Your task to perform on an android device: Do I have any events tomorrow? Image 0: 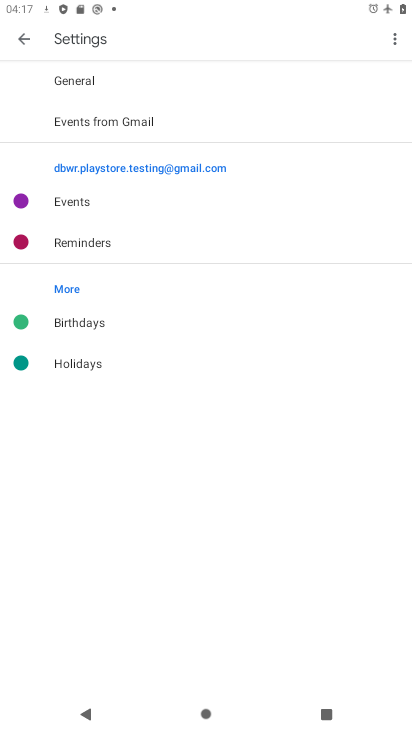
Step 0: press home button
Your task to perform on an android device: Do I have any events tomorrow? Image 1: 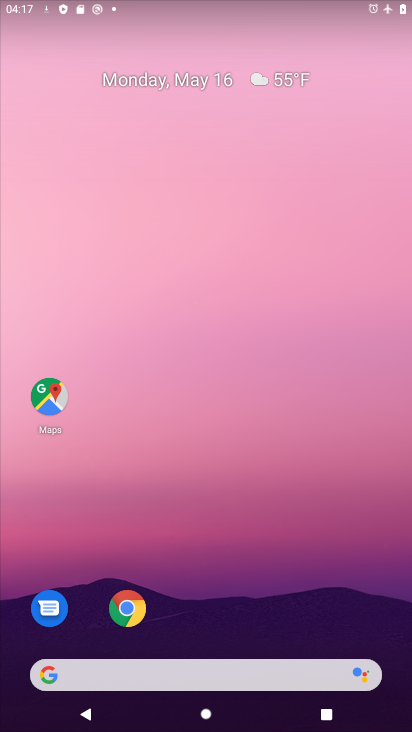
Step 1: drag from (192, 604) to (182, 236)
Your task to perform on an android device: Do I have any events tomorrow? Image 2: 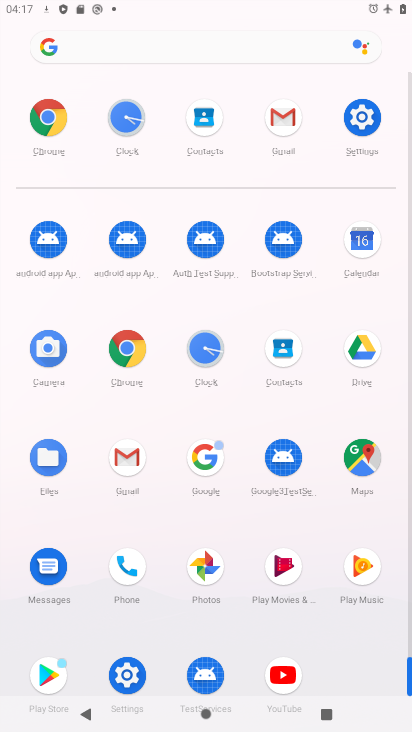
Step 2: click (352, 252)
Your task to perform on an android device: Do I have any events tomorrow? Image 3: 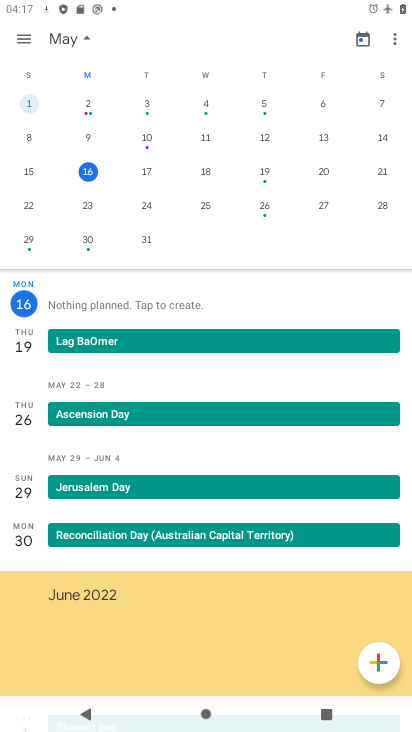
Step 3: click (142, 170)
Your task to perform on an android device: Do I have any events tomorrow? Image 4: 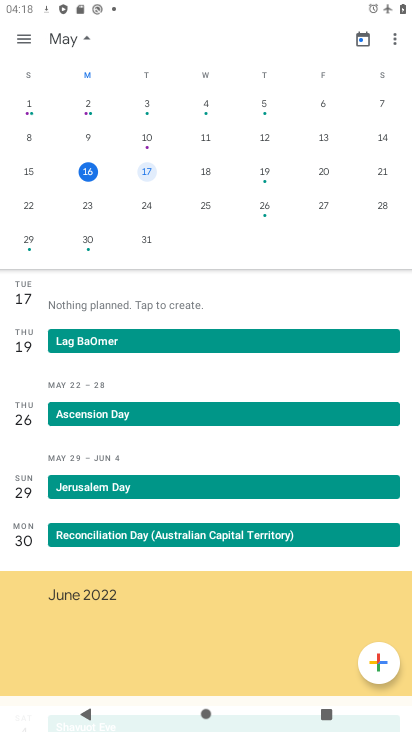
Step 4: click (144, 168)
Your task to perform on an android device: Do I have any events tomorrow? Image 5: 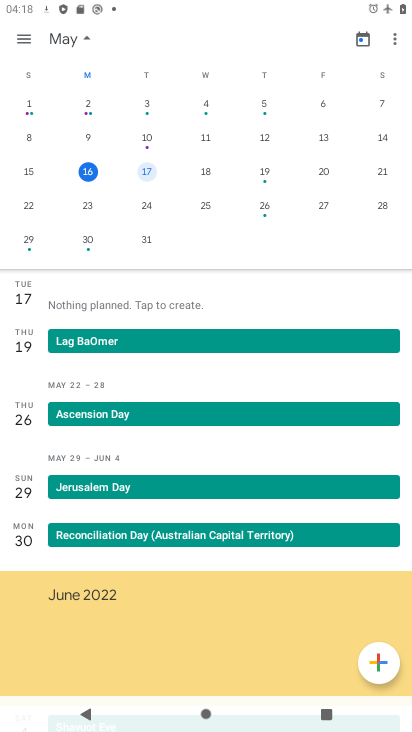
Step 5: click (145, 170)
Your task to perform on an android device: Do I have any events tomorrow? Image 6: 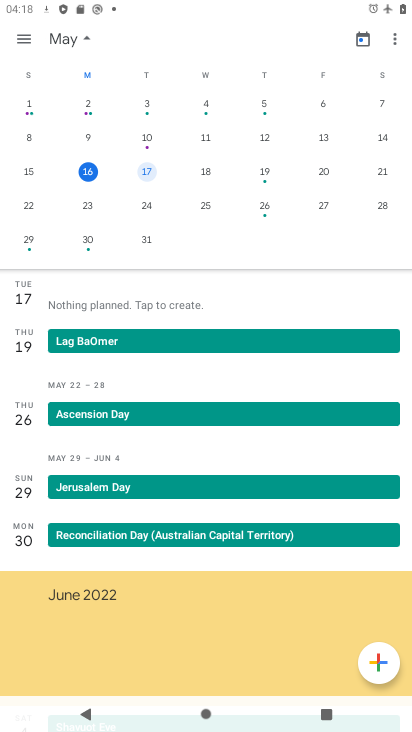
Step 6: click (145, 170)
Your task to perform on an android device: Do I have any events tomorrow? Image 7: 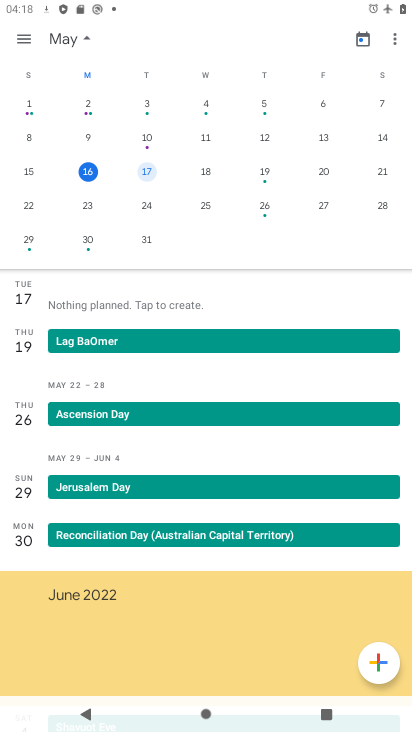
Step 7: click (142, 173)
Your task to perform on an android device: Do I have any events tomorrow? Image 8: 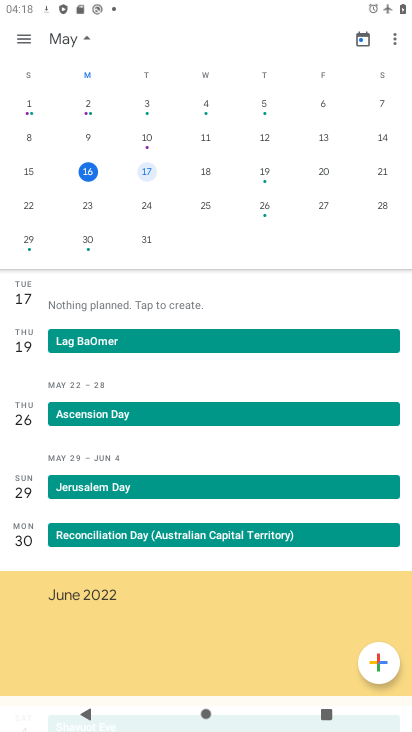
Step 8: click (148, 175)
Your task to perform on an android device: Do I have any events tomorrow? Image 9: 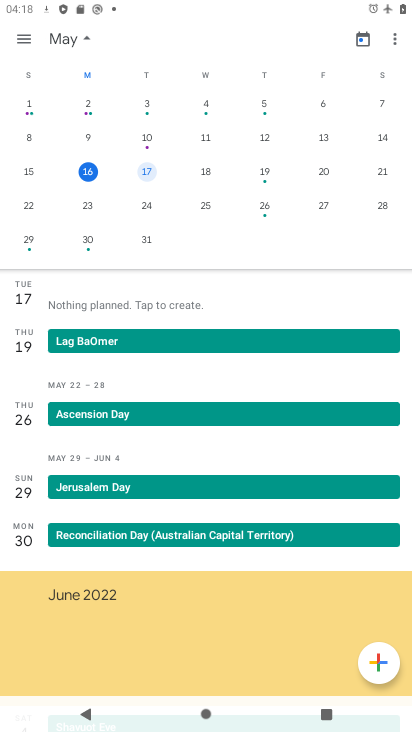
Step 9: task complete